Your task to perform on an android device: Open settings on Google Maps Image 0: 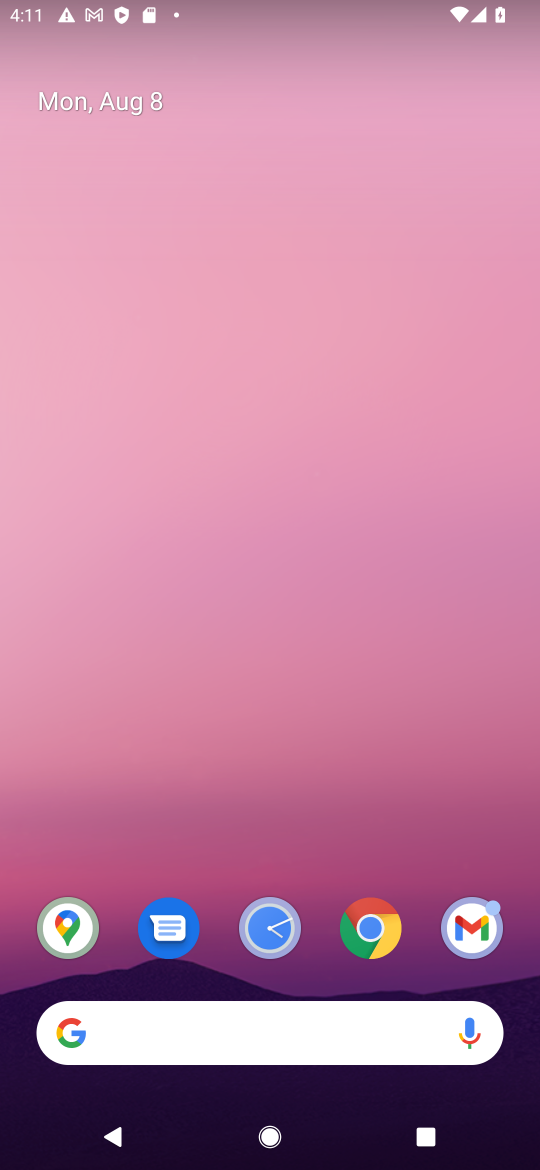
Step 0: click (69, 947)
Your task to perform on an android device: Open settings on Google Maps Image 1: 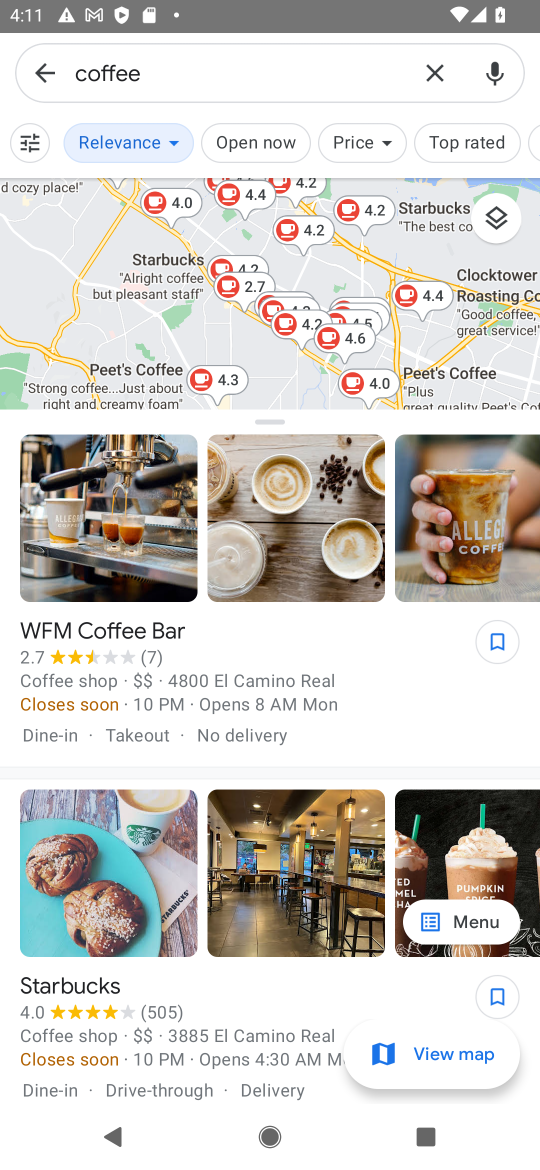
Step 1: click (52, 64)
Your task to perform on an android device: Open settings on Google Maps Image 2: 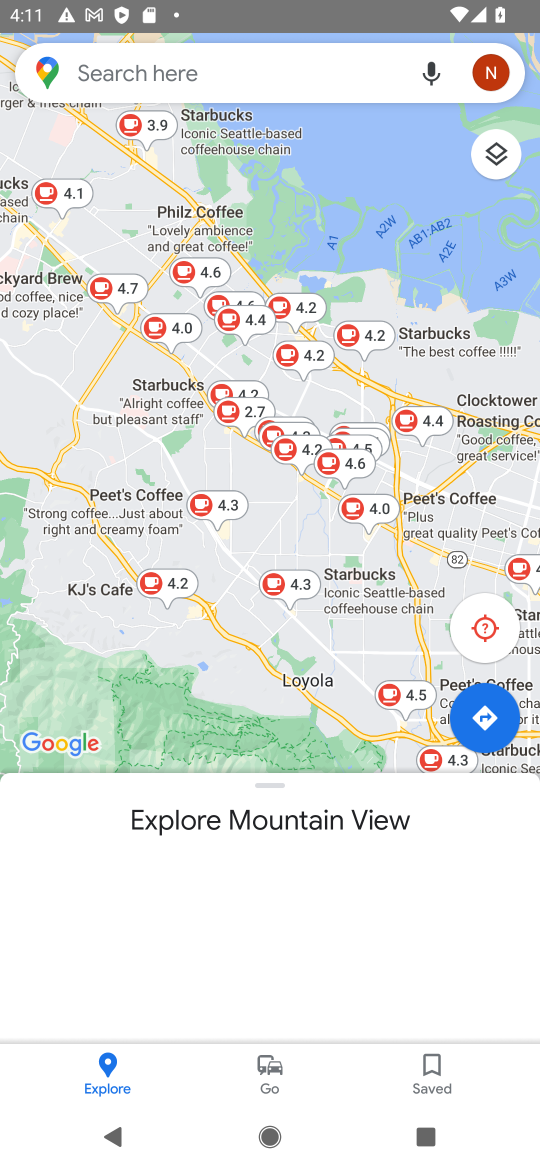
Step 2: click (52, 64)
Your task to perform on an android device: Open settings on Google Maps Image 3: 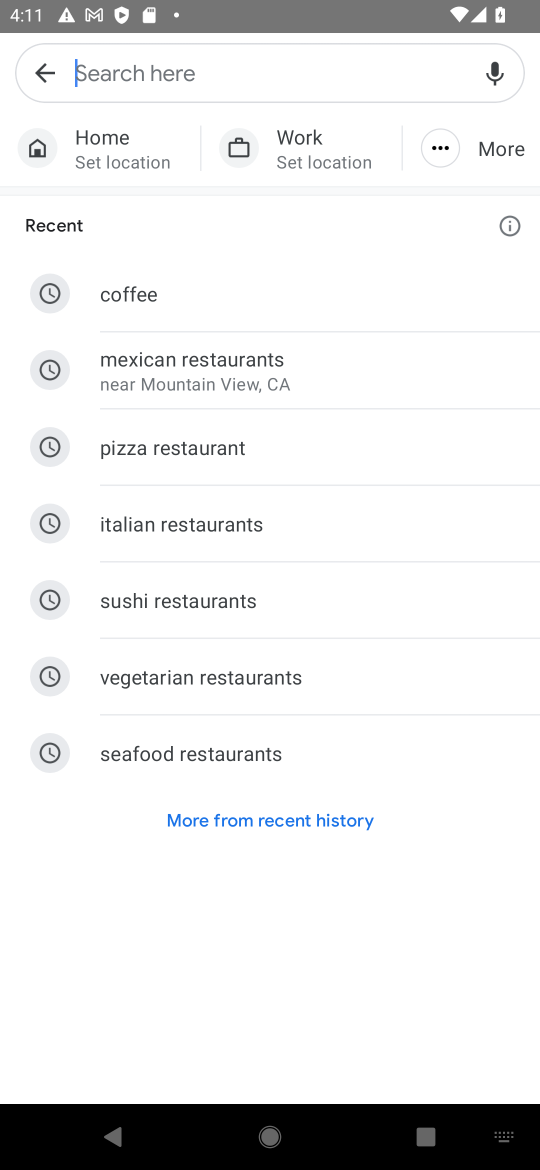
Step 3: click (33, 79)
Your task to perform on an android device: Open settings on Google Maps Image 4: 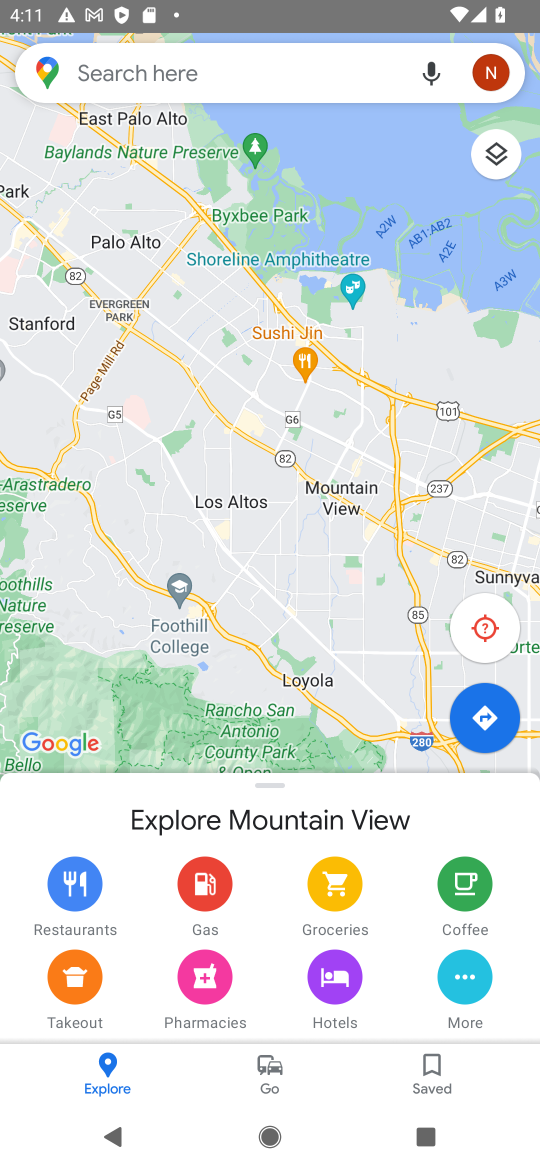
Step 4: click (505, 68)
Your task to perform on an android device: Open settings on Google Maps Image 5: 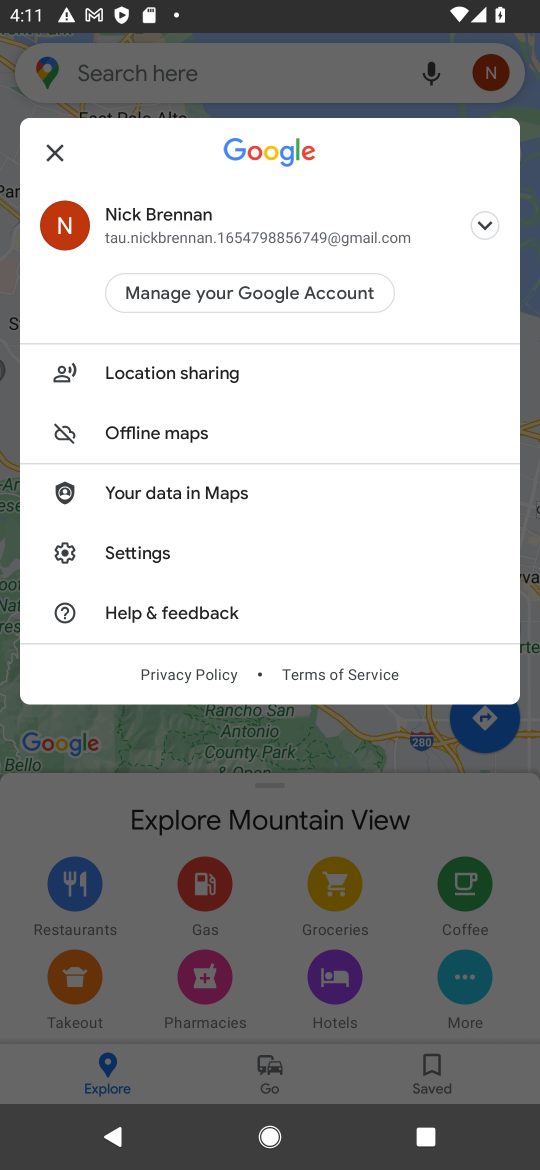
Step 5: click (173, 545)
Your task to perform on an android device: Open settings on Google Maps Image 6: 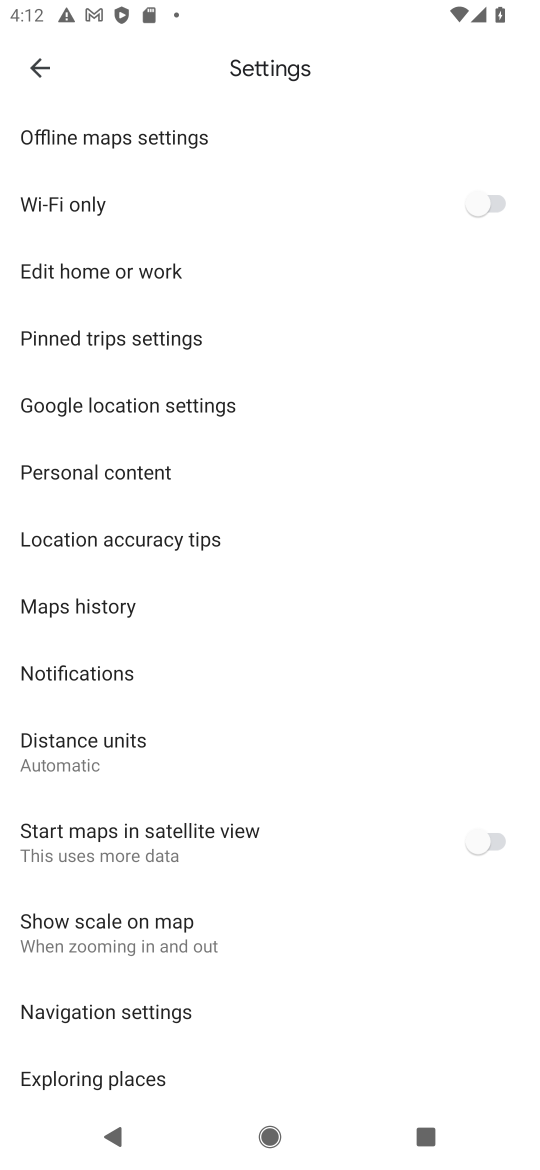
Step 6: task complete